Your task to perform on an android device: Open network settings Image 0: 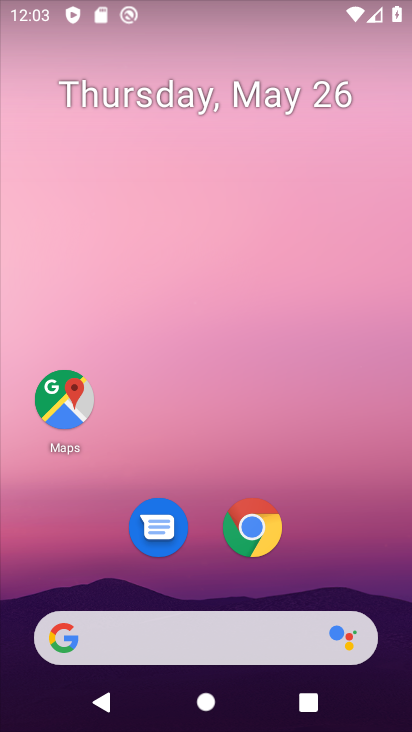
Step 0: drag from (197, 8) to (203, 451)
Your task to perform on an android device: Open network settings Image 1: 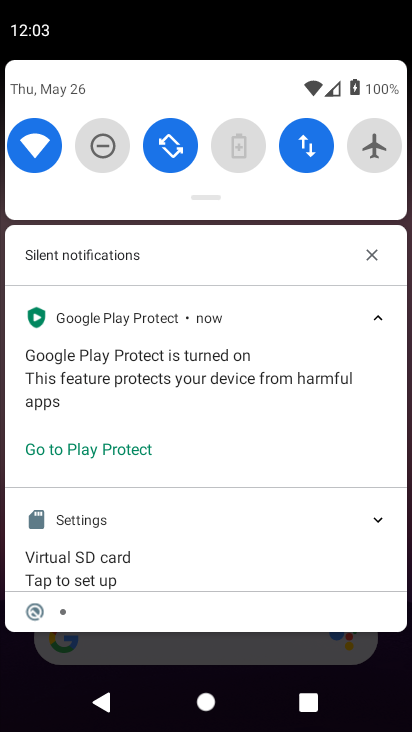
Step 1: click (315, 134)
Your task to perform on an android device: Open network settings Image 2: 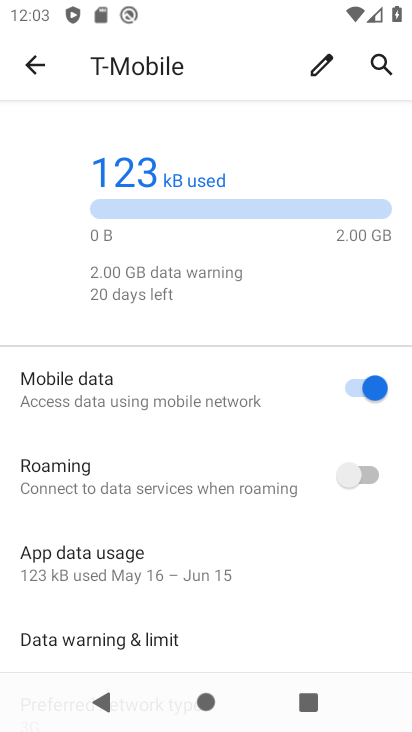
Step 2: task complete